Your task to perform on an android device: turn on the 12-hour format for clock Image 0: 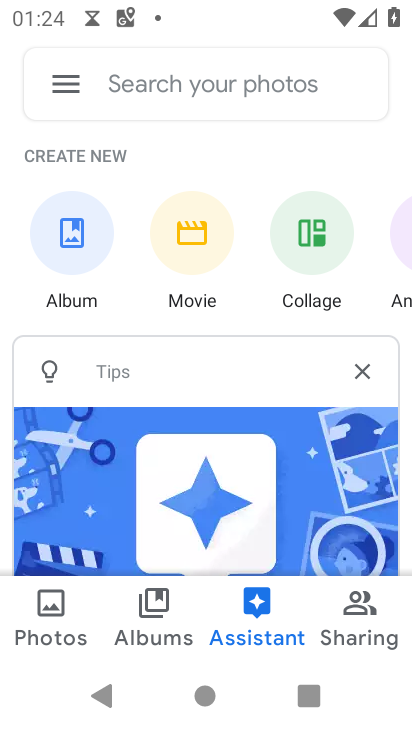
Step 0: press home button
Your task to perform on an android device: turn on the 12-hour format for clock Image 1: 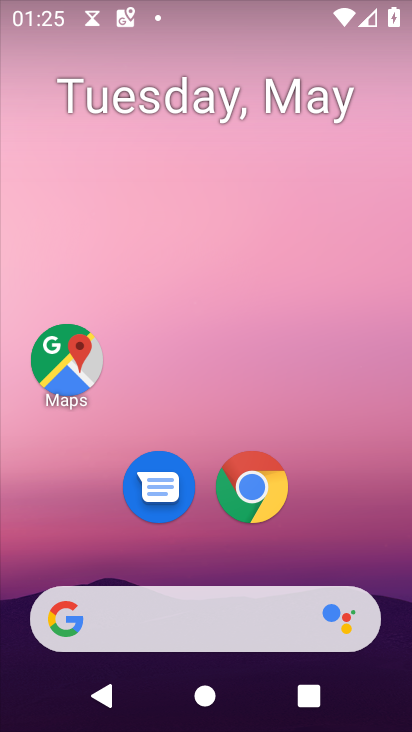
Step 1: drag from (326, 557) to (372, 165)
Your task to perform on an android device: turn on the 12-hour format for clock Image 2: 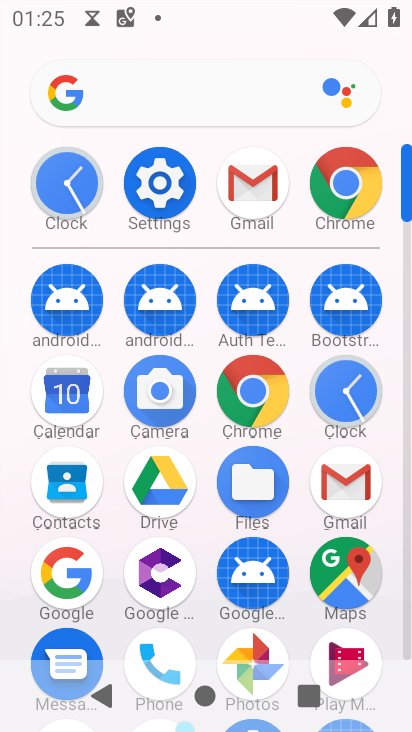
Step 2: click (72, 194)
Your task to perform on an android device: turn on the 12-hour format for clock Image 3: 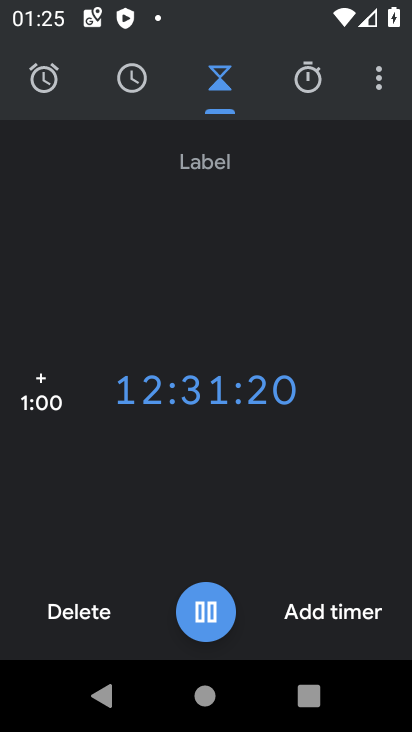
Step 3: press home button
Your task to perform on an android device: turn on the 12-hour format for clock Image 4: 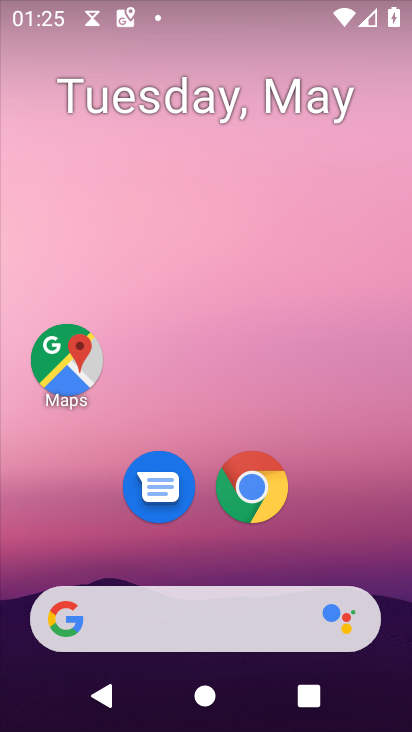
Step 4: drag from (378, 556) to (313, 154)
Your task to perform on an android device: turn on the 12-hour format for clock Image 5: 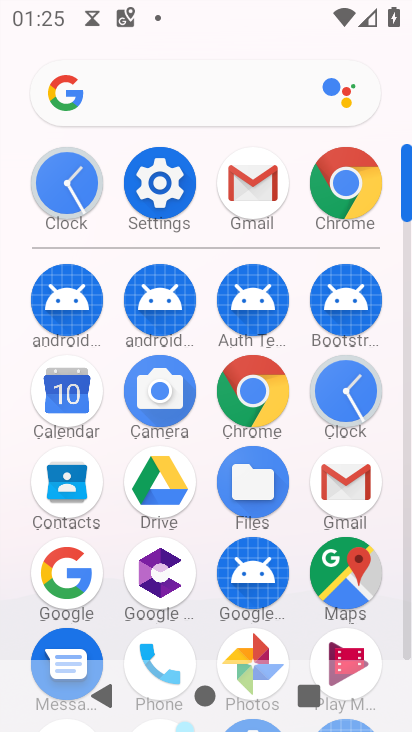
Step 5: click (141, 179)
Your task to perform on an android device: turn on the 12-hour format for clock Image 6: 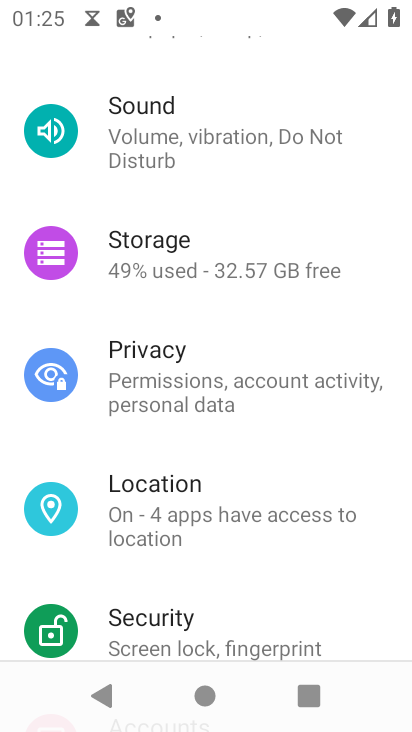
Step 6: drag from (141, 172) to (280, 597)
Your task to perform on an android device: turn on the 12-hour format for clock Image 7: 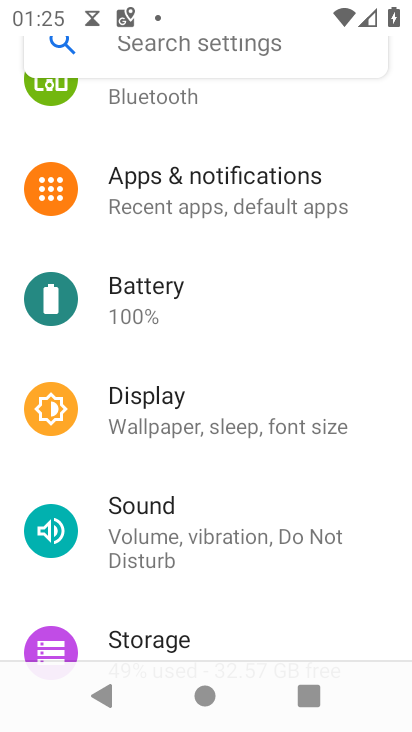
Step 7: type "date"
Your task to perform on an android device: turn on the 12-hour format for clock Image 8: 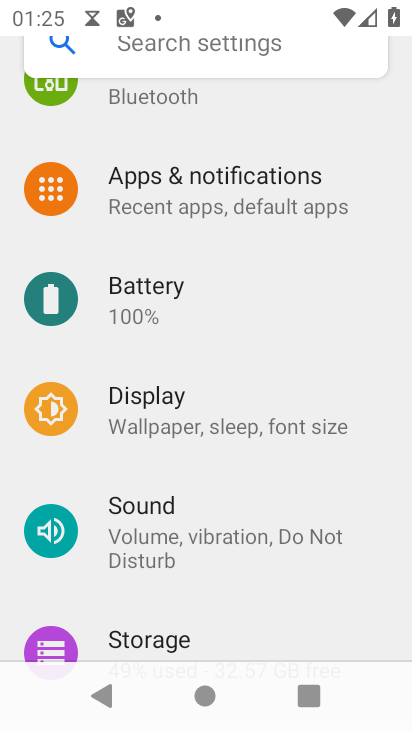
Step 8: type "date and time"
Your task to perform on an android device: turn on the 12-hour format for clock Image 9: 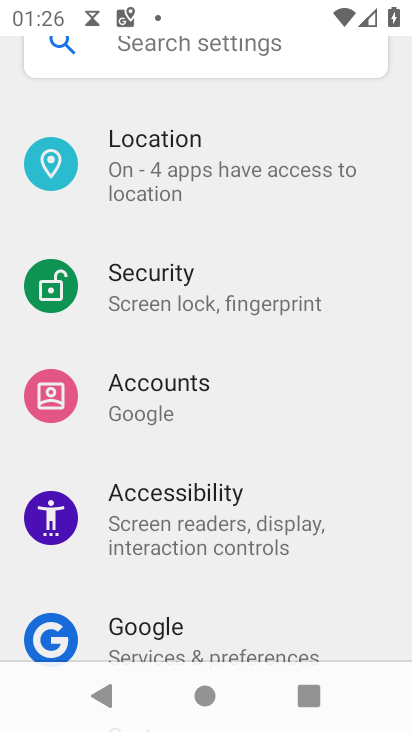
Step 9: type "date and time"
Your task to perform on an android device: turn on the 12-hour format for clock Image 10: 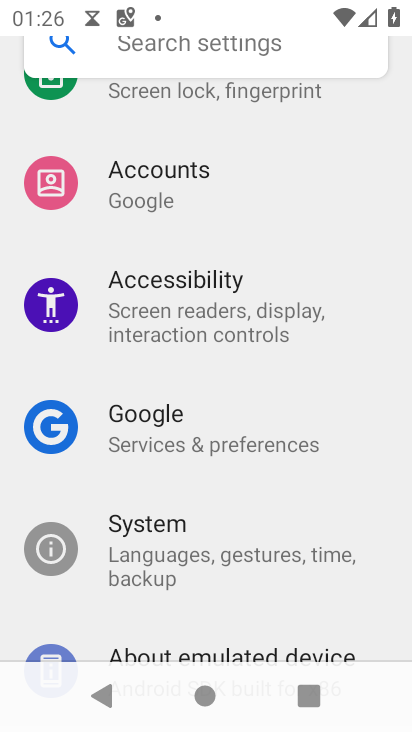
Step 10: type ""
Your task to perform on an android device: turn on the 12-hour format for clock Image 11: 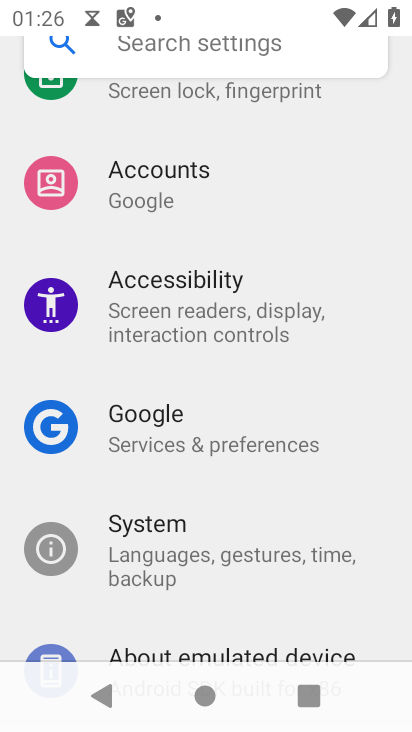
Step 11: drag from (223, 141) to (220, 570)
Your task to perform on an android device: turn on the 12-hour format for clock Image 12: 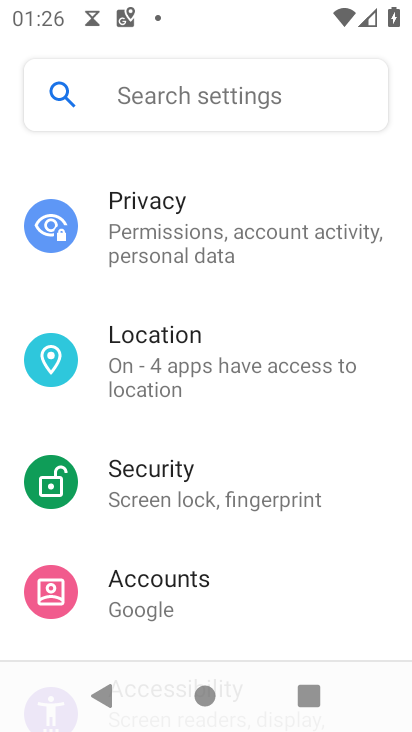
Step 12: drag from (225, 483) to (309, 77)
Your task to perform on an android device: turn on the 12-hour format for clock Image 13: 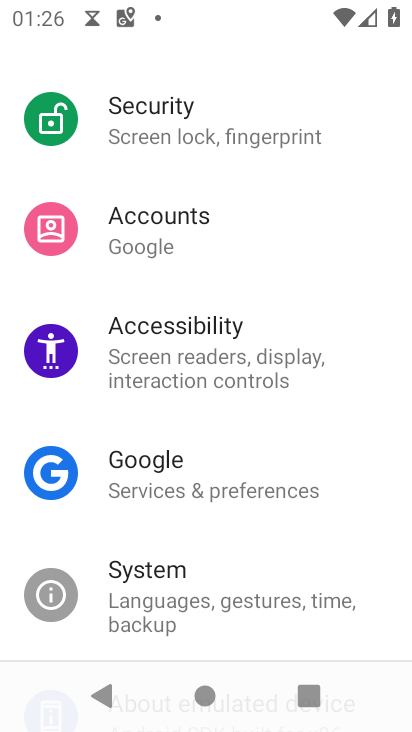
Step 13: drag from (288, 399) to (336, 122)
Your task to perform on an android device: turn on the 12-hour format for clock Image 14: 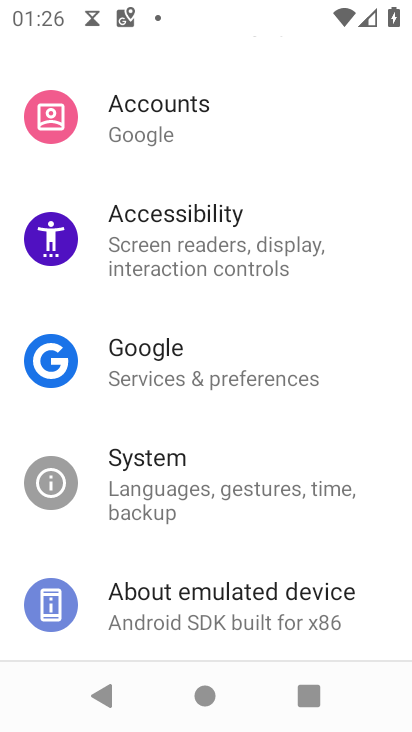
Step 14: drag from (275, 488) to (304, 102)
Your task to perform on an android device: turn on the 12-hour format for clock Image 15: 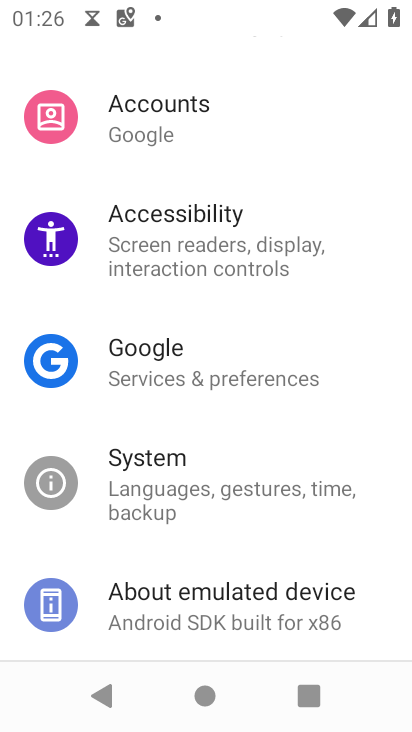
Step 15: drag from (193, 219) to (205, 591)
Your task to perform on an android device: turn on the 12-hour format for clock Image 16: 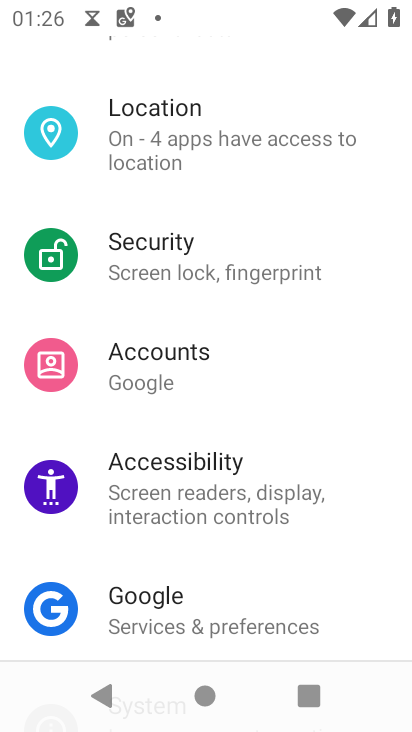
Step 16: drag from (205, 297) to (224, 488)
Your task to perform on an android device: turn on the 12-hour format for clock Image 17: 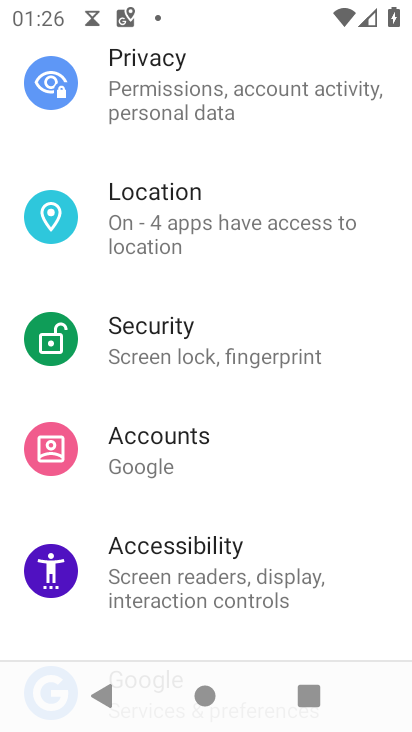
Step 17: drag from (202, 288) to (196, 463)
Your task to perform on an android device: turn on the 12-hour format for clock Image 18: 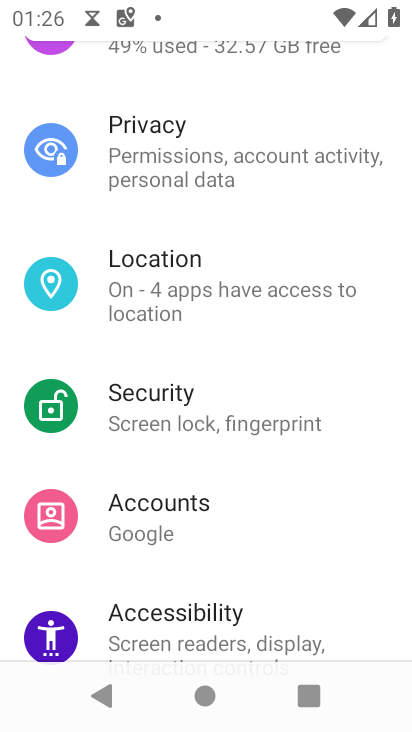
Step 18: drag from (185, 207) to (169, 422)
Your task to perform on an android device: turn on the 12-hour format for clock Image 19: 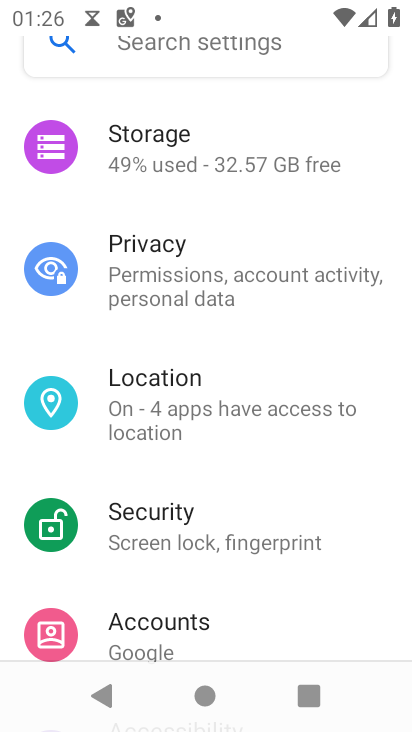
Step 19: drag from (172, 208) to (193, 514)
Your task to perform on an android device: turn on the 12-hour format for clock Image 20: 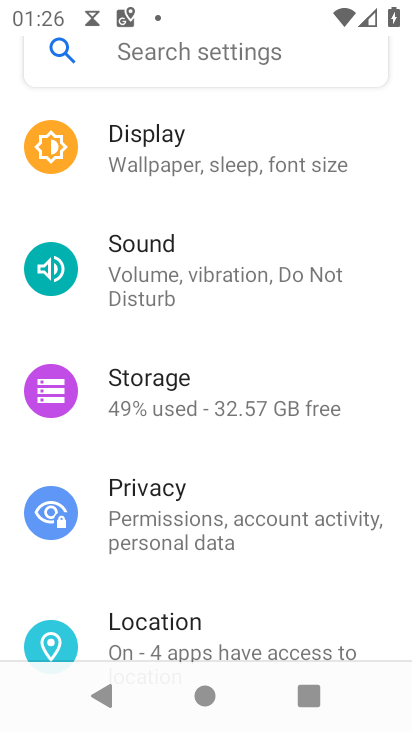
Step 20: drag from (198, 201) to (226, 511)
Your task to perform on an android device: turn on the 12-hour format for clock Image 21: 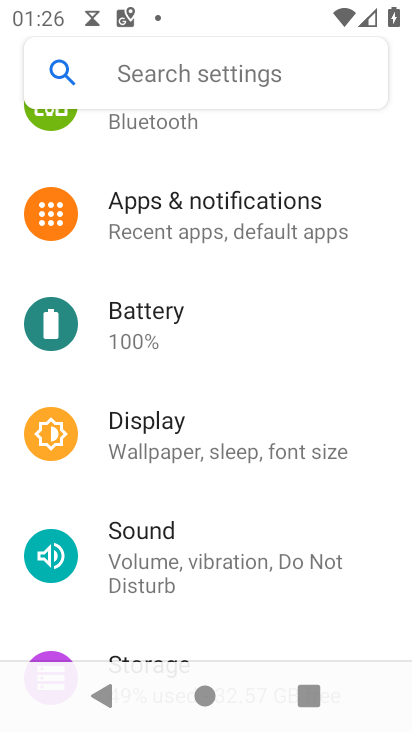
Step 21: drag from (222, 284) to (220, 514)
Your task to perform on an android device: turn on the 12-hour format for clock Image 22: 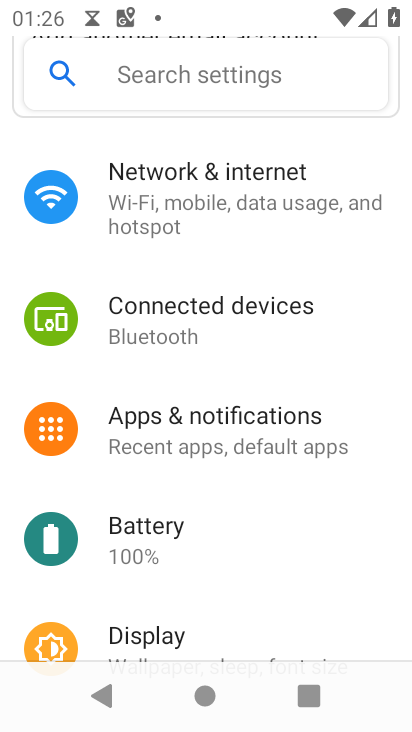
Step 22: drag from (225, 279) to (228, 531)
Your task to perform on an android device: turn on the 12-hour format for clock Image 23: 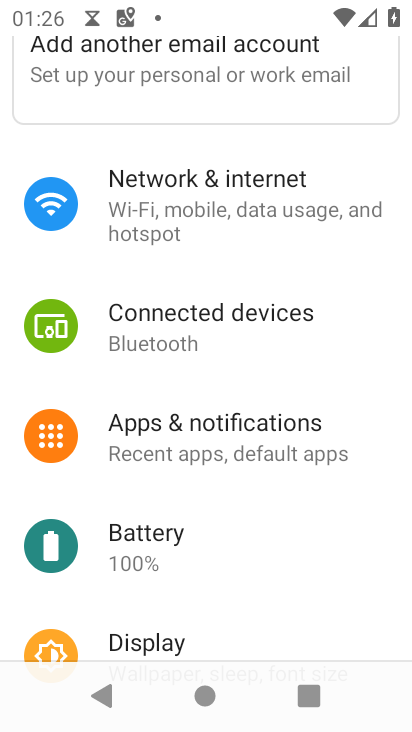
Step 23: drag from (220, 500) to (246, 160)
Your task to perform on an android device: turn on the 12-hour format for clock Image 24: 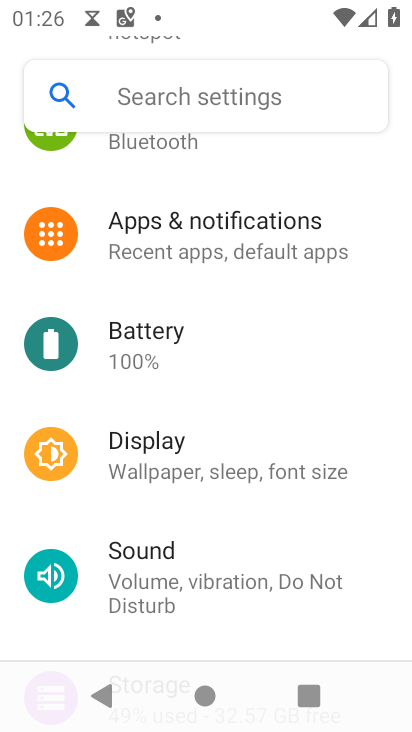
Step 24: drag from (241, 443) to (297, 92)
Your task to perform on an android device: turn on the 12-hour format for clock Image 25: 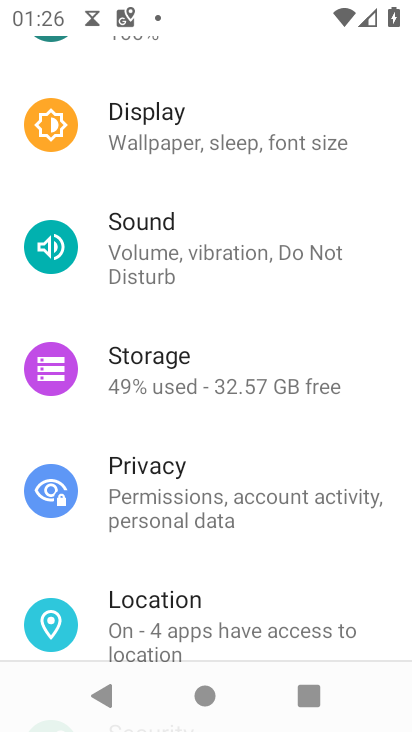
Step 25: drag from (206, 557) to (200, 216)
Your task to perform on an android device: turn on the 12-hour format for clock Image 26: 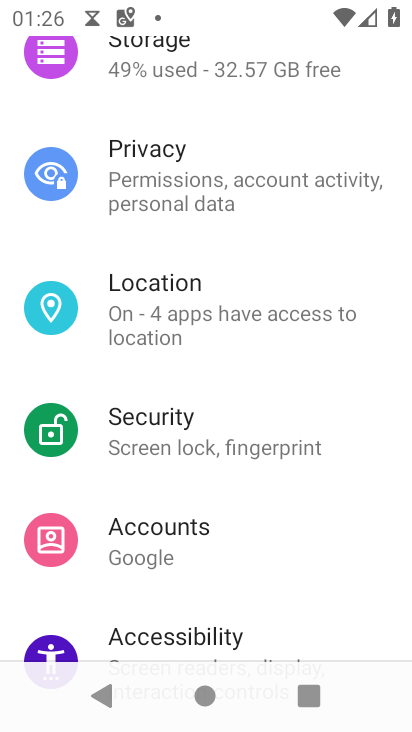
Step 26: drag from (312, 547) to (307, 251)
Your task to perform on an android device: turn on the 12-hour format for clock Image 27: 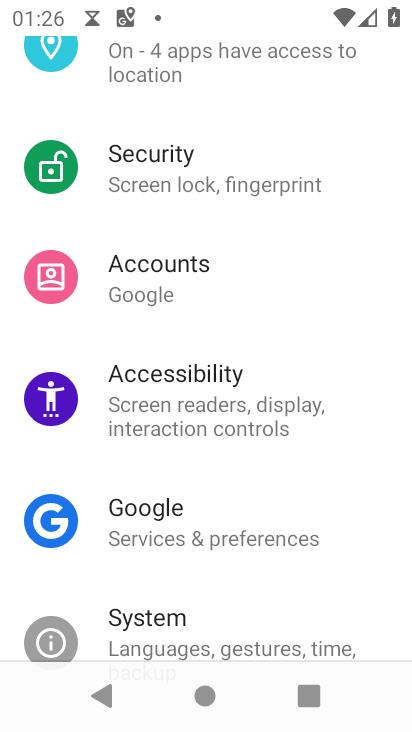
Step 27: drag from (233, 437) to (268, 147)
Your task to perform on an android device: turn on the 12-hour format for clock Image 28: 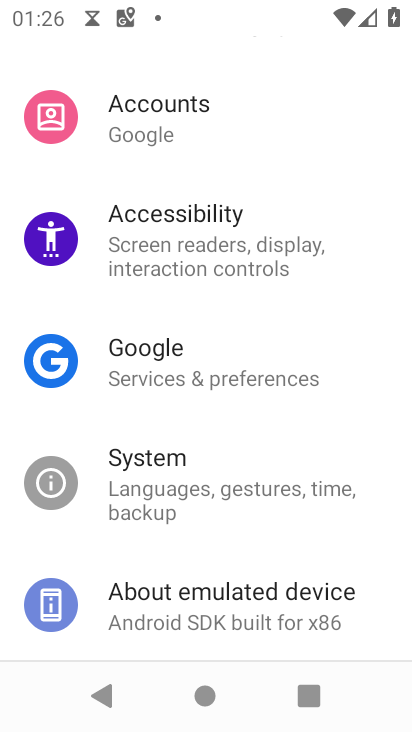
Step 28: drag from (215, 409) to (238, 73)
Your task to perform on an android device: turn on the 12-hour format for clock Image 29: 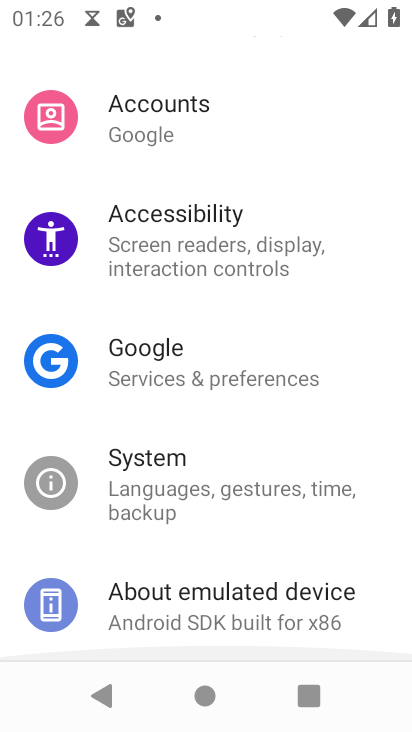
Step 29: drag from (238, 71) to (254, 395)
Your task to perform on an android device: turn on the 12-hour format for clock Image 30: 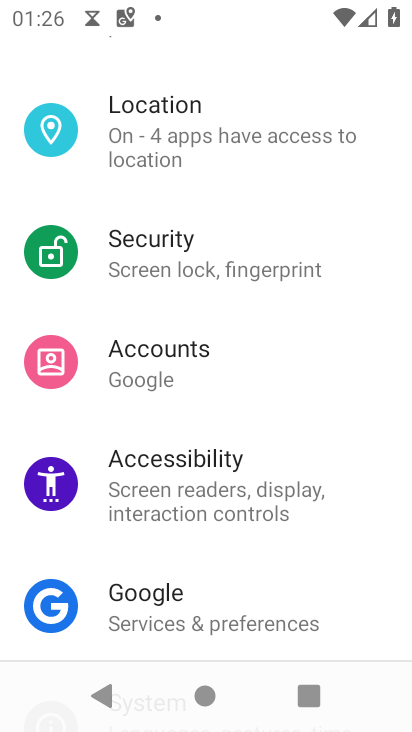
Step 30: drag from (179, 39) to (266, 255)
Your task to perform on an android device: turn on the 12-hour format for clock Image 31: 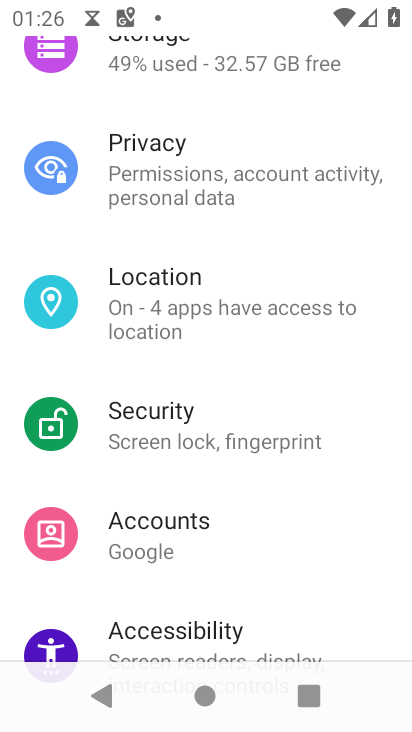
Step 31: press home button
Your task to perform on an android device: turn on the 12-hour format for clock Image 32: 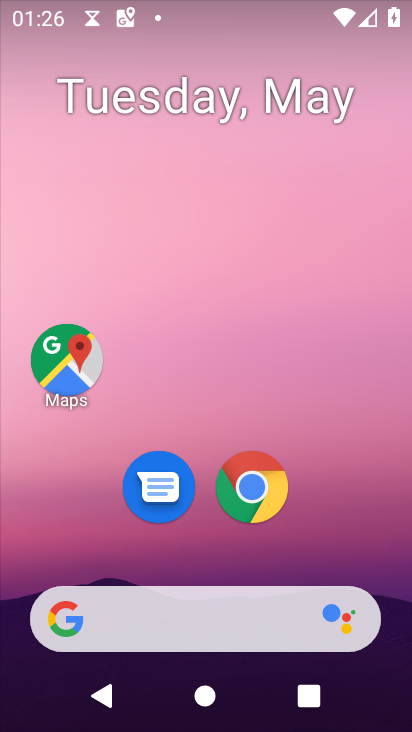
Step 32: drag from (117, 149) to (272, 207)
Your task to perform on an android device: turn on the 12-hour format for clock Image 33: 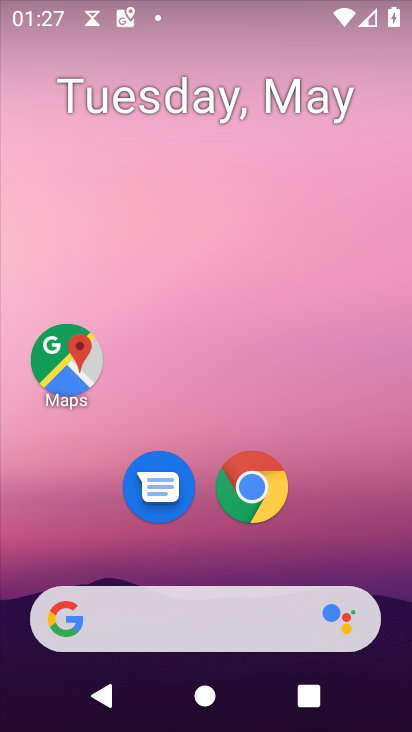
Step 33: drag from (246, 361) to (250, 41)
Your task to perform on an android device: turn on the 12-hour format for clock Image 34: 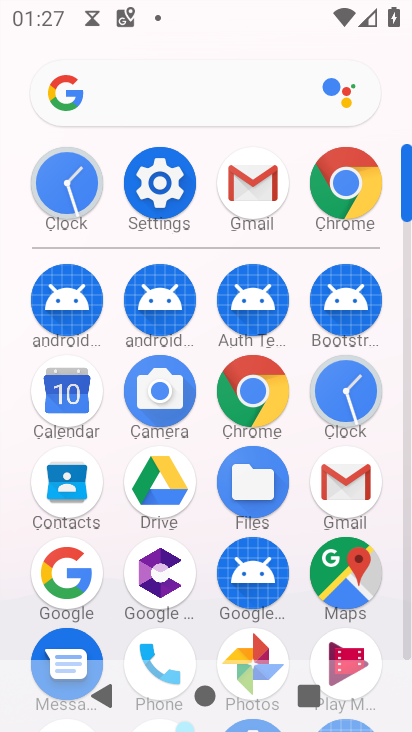
Step 34: click (54, 20)
Your task to perform on an android device: turn on the 12-hour format for clock Image 35: 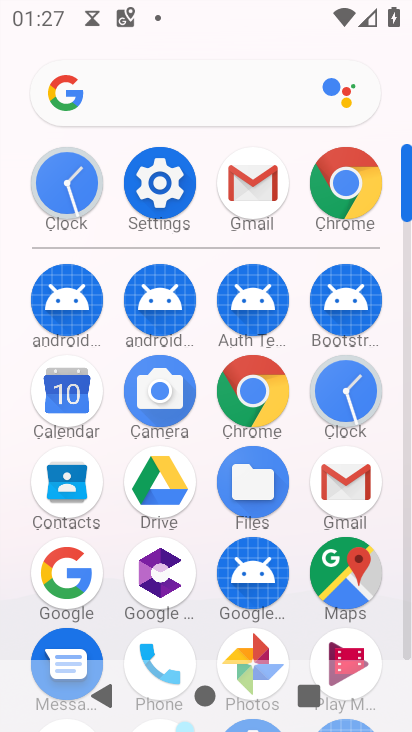
Step 35: click (50, 8)
Your task to perform on an android device: turn on the 12-hour format for clock Image 36: 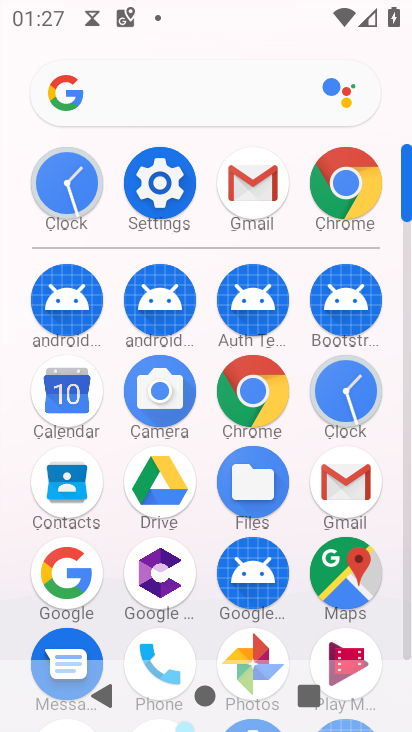
Step 36: click (44, 23)
Your task to perform on an android device: turn on the 12-hour format for clock Image 37: 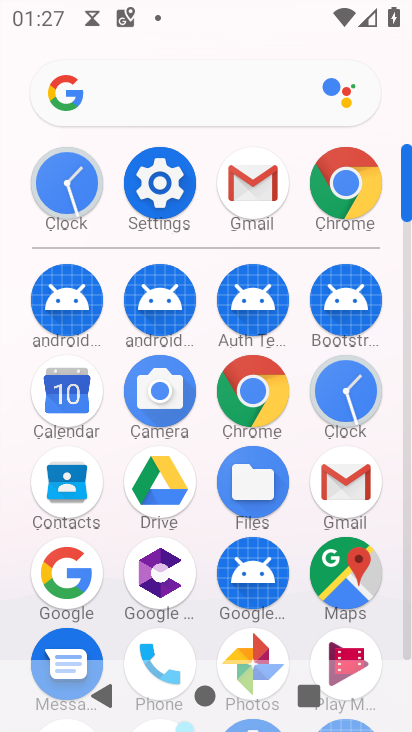
Step 37: click (42, 23)
Your task to perform on an android device: turn on the 12-hour format for clock Image 38: 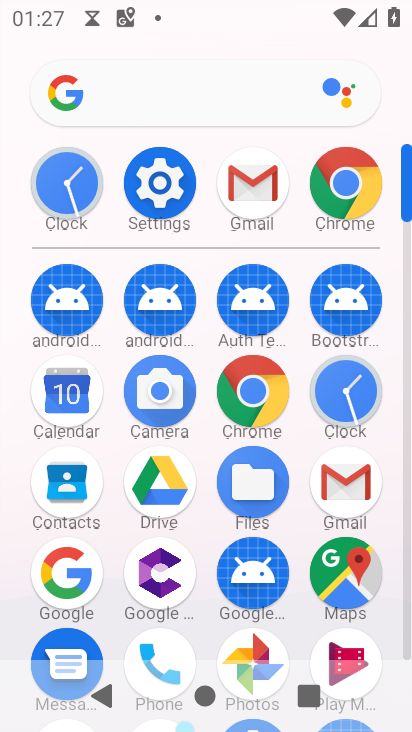
Step 38: click (42, 23)
Your task to perform on an android device: turn on the 12-hour format for clock Image 39: 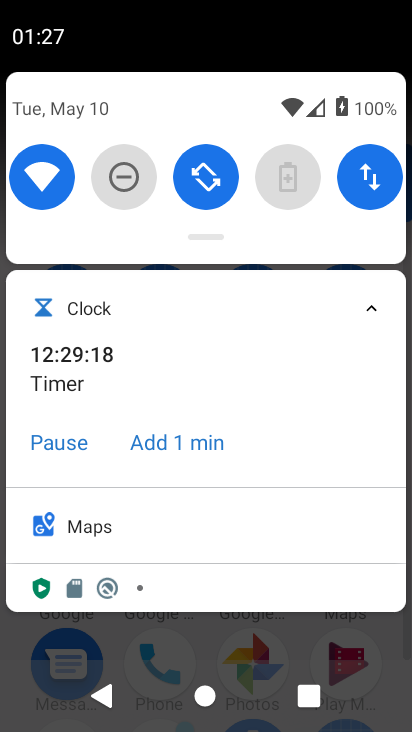
Step 39: click (81, 118)
Your task to perform on an android device: turn on the 12-hour format for clock Image 40: 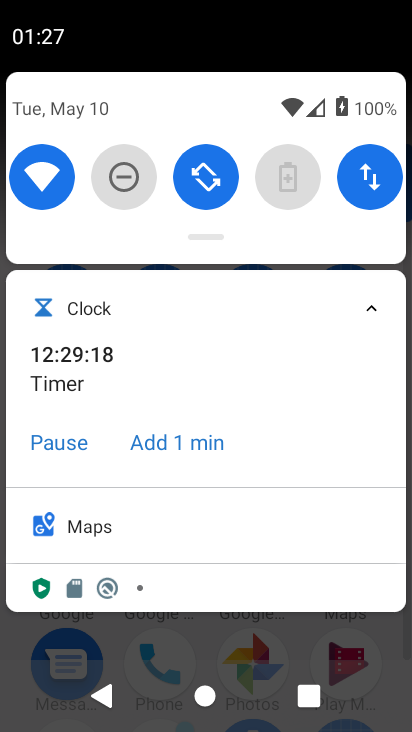
Step 40: click (81, 118)
Your task to perform on an android device: turn on the 12-hour format for clock Image 41: 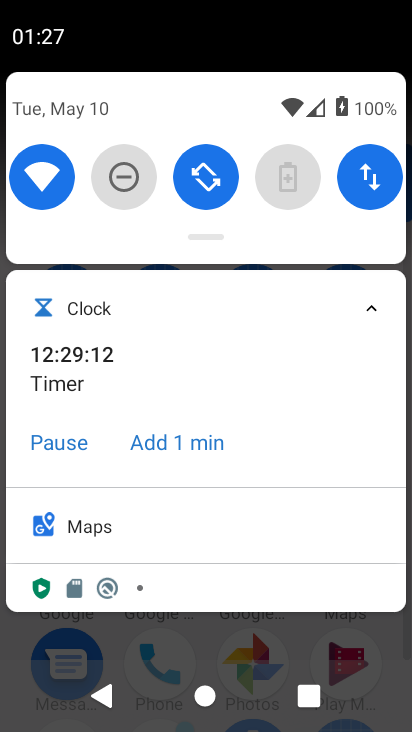
Step 41: click (70, 436)
Your task to perform on an android device: turn on the 12-hour format for clock Image 42: 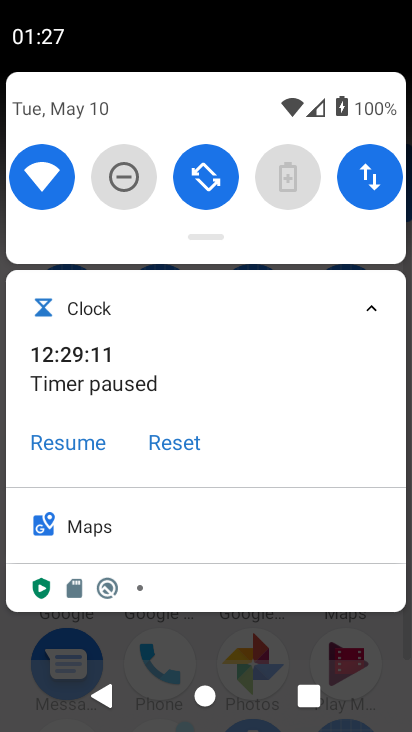
Step 42: click (49, 111)
Your task to perform on an android device: turn on the 12-hour format for clock Image 43: 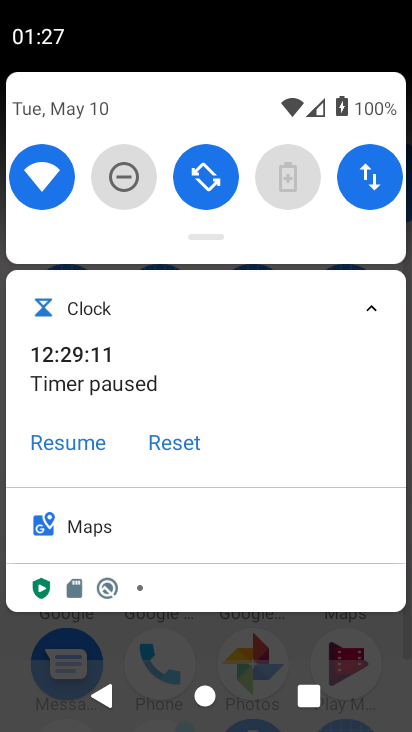
Step 43: click (49, 111)
Your task to perform on an android device: turn on the 12-hour format for clock Image 44: 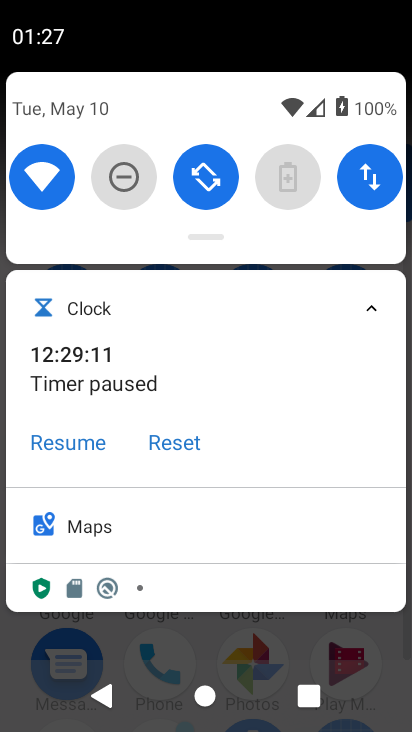
Step 44: click (49, 111)
Your task to perform on an android device: turn on the 12-hour format for clock Image 45: 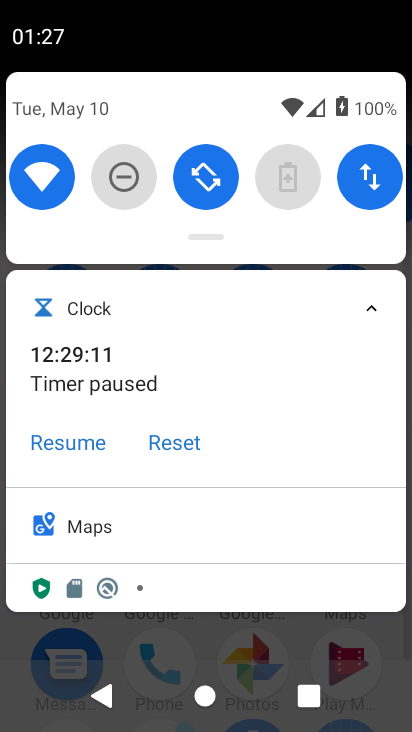
Step 45: click (49, 111)
Your task to perform on an android device: turn on the 12-hour format for clock Image 46: 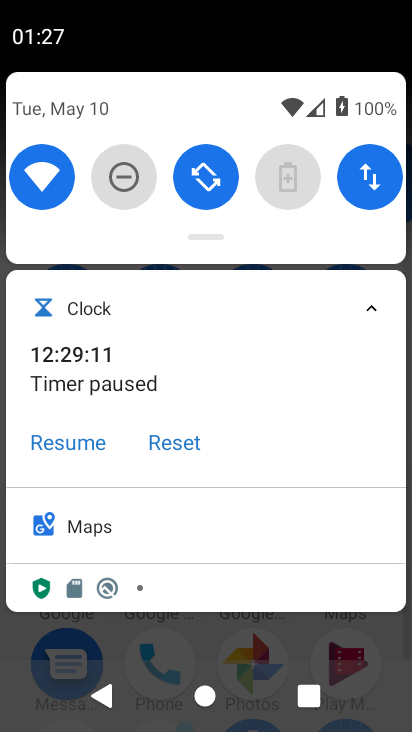
Step 46: click (49, 111)
Your task to perform on an android device: turn on the 12-hour format for clock Image 47: 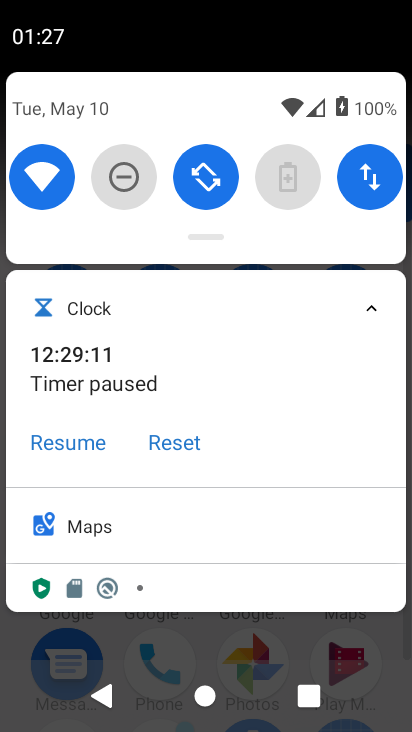
Step 47: click (77, 100)
Your task to perform on an android device: turn on the 12-hour format for clock Image 48: 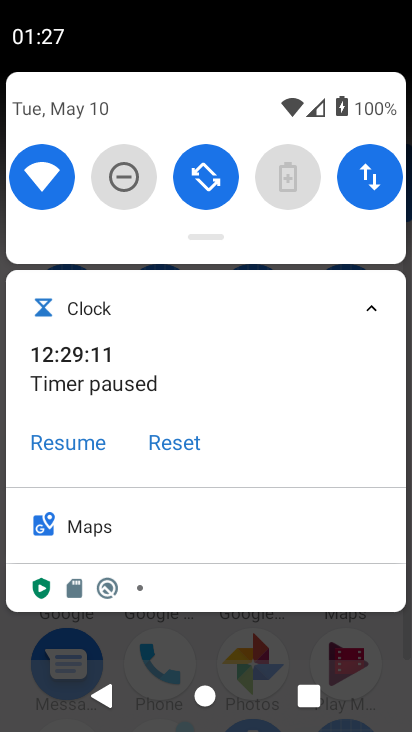
Step 48: click (77, 100)
Your task to perform on an android device: turn on the 12-hour format for clock Image 49: 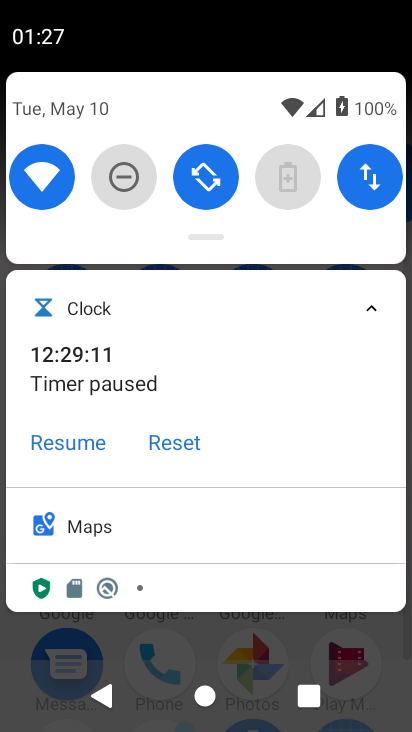
Step 49: click (77, 100)
Your task to perform on an android device: turn on the 12-hour format for clock Image 50: 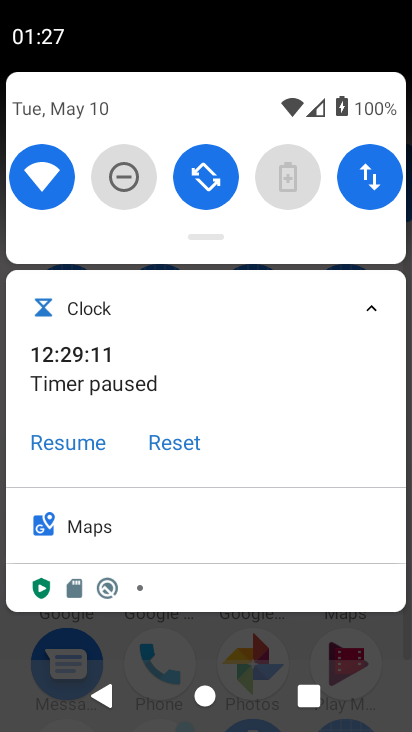
Step 50: drag from (243, 229) to (294, 527)
Your task to perform on an android device: turn on the 12-hour format for clock Image 51: 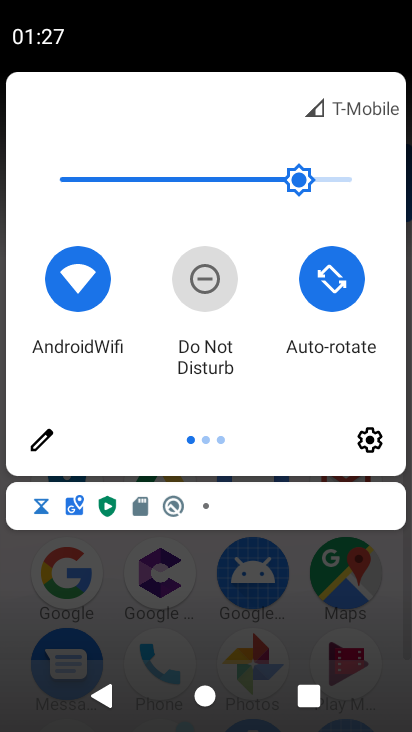
Step 51: drag from (292, 444) to (319, 149)
Your task to perform on an android device: turn on the 12-hour format for clock Image 52: 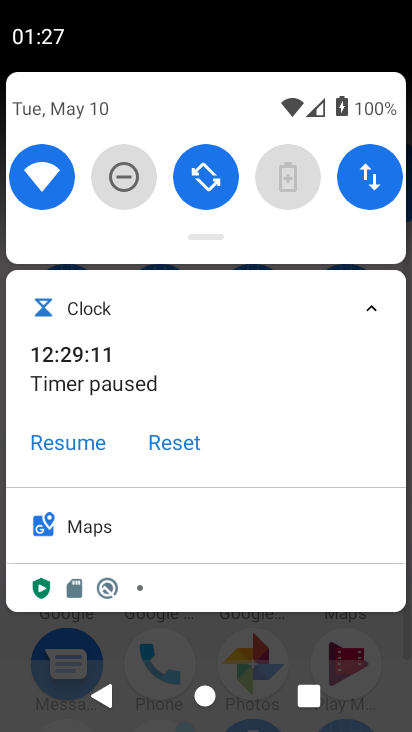
Step 52: click (74, 108)
Your task to perform on an android device: turn on the 12-hour format for clock Image 53: 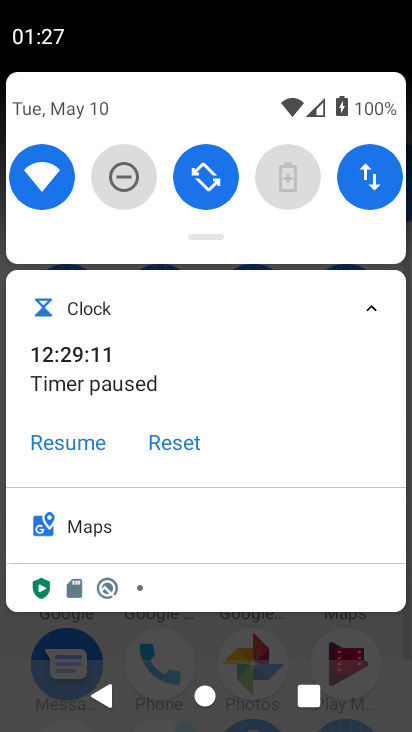
Step 53: click (69, 108)
Your task to perform on an android device: turn on the 12-hour format for clock Image 54: 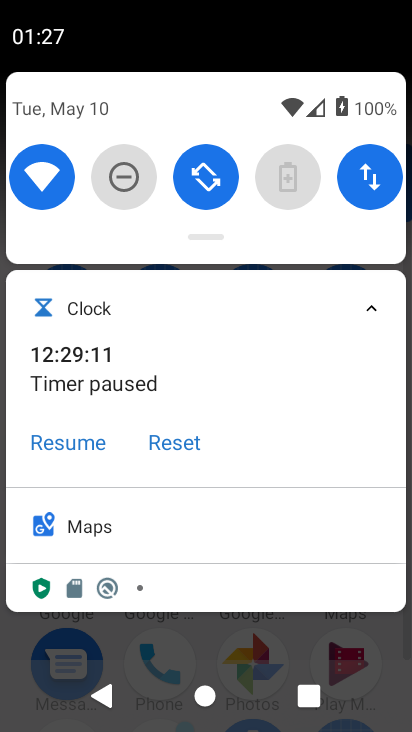
Step 54: click (69, 108)
Your task to perform on an android device: turn on the 12-hour format for clock Image 55: 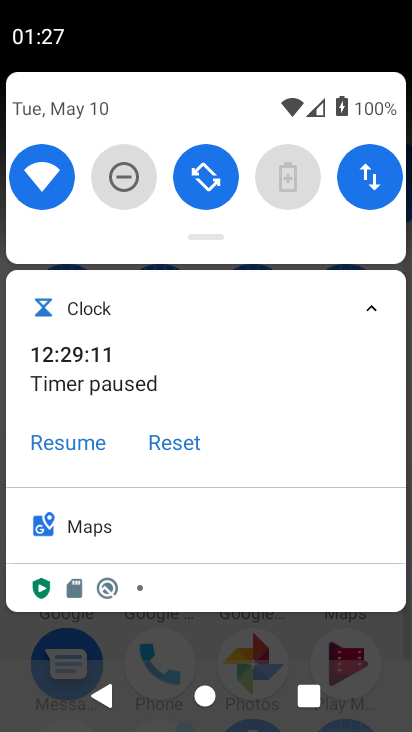
Step 55: click (69, 108)
Your task to perform on an android device: turn on the 12-hour format for clock Image 56: 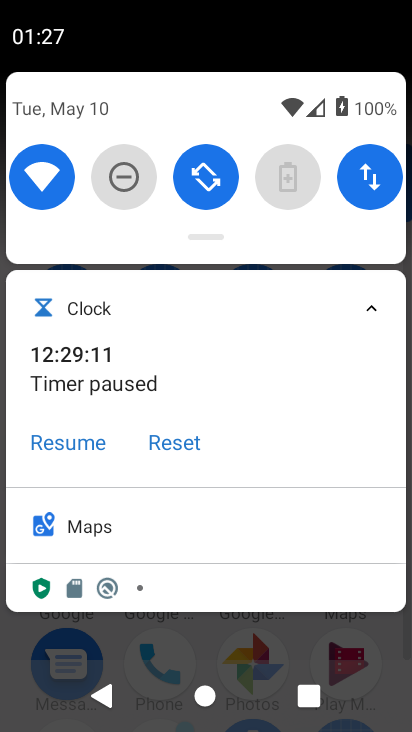
Step 56: click (69, 108)
Your task to perform on an android device: turn on the 12-hour format for clock Image 57: 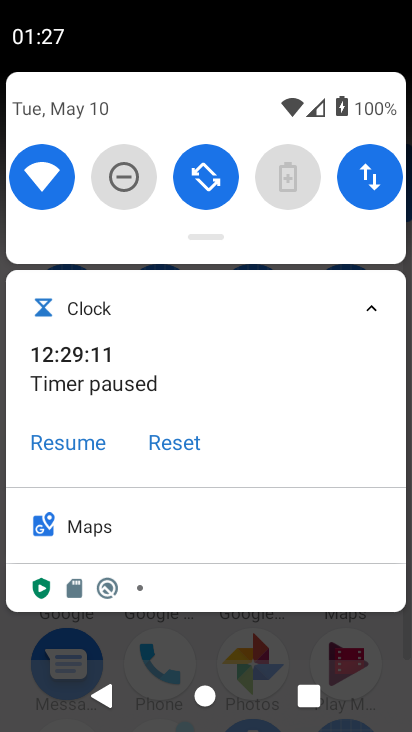
Step 57: click (69, 108)
Your task to perform on an android device: turn on the 12-hour format for clock Image 58: 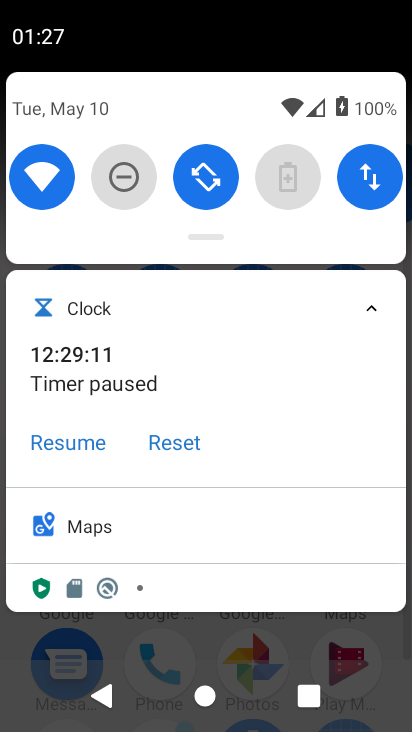
Step 58: click (69, 108)
Your task to perform on an android device: turn on the 12-hour format for clock Image 59: 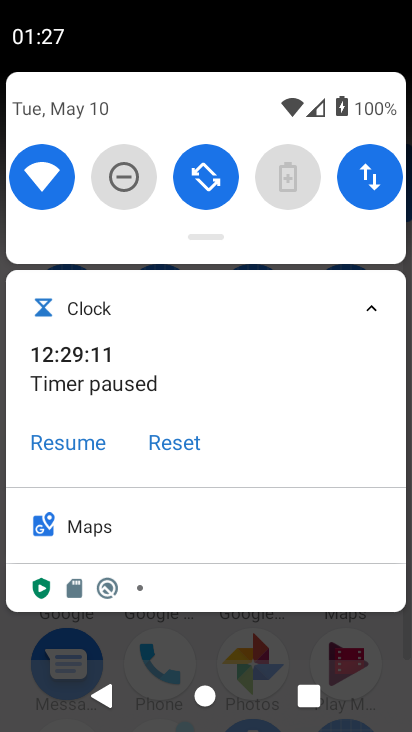
Step 59: click (69, 108)
Your task to perform on an android device: turn on the 12-hour format for clock Image 60: 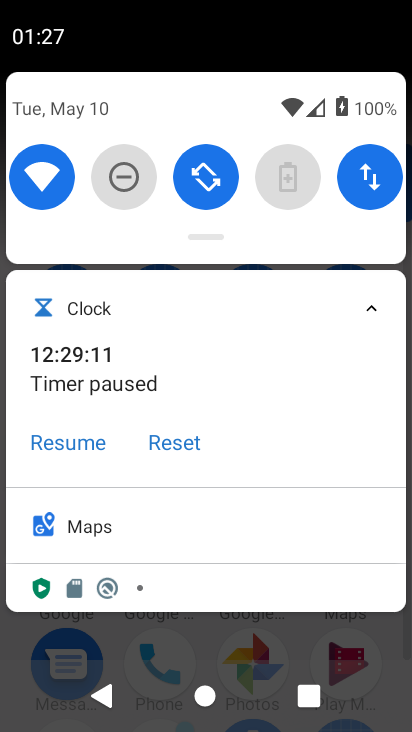
Step 60: drag from (254, 232) to (160, 650)
Your task to perform on an android device: turn on the 12-hour format for clock Image 61: 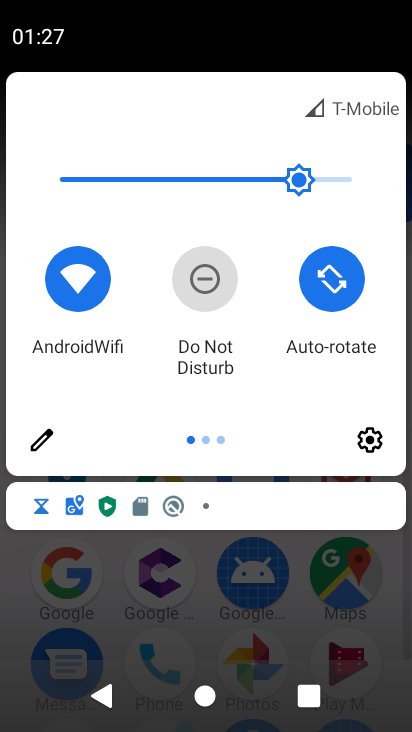
Step 61: click (364, 435)
Your task to perform on an android device: turn on the 12-hour format for clock Image 62: 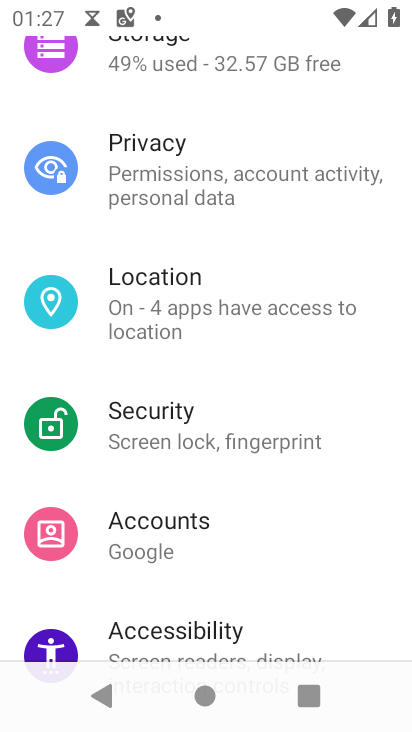
Step 62: task complete